Your task to perform on an android device: Show me the alarms in the clock app Image 0: 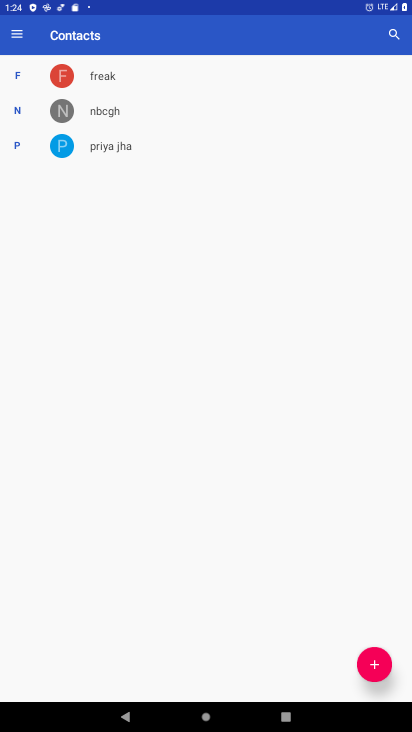
Step 0: press home button
Your task to perform on an android device: Show me the alarms in the clock app Image 1: 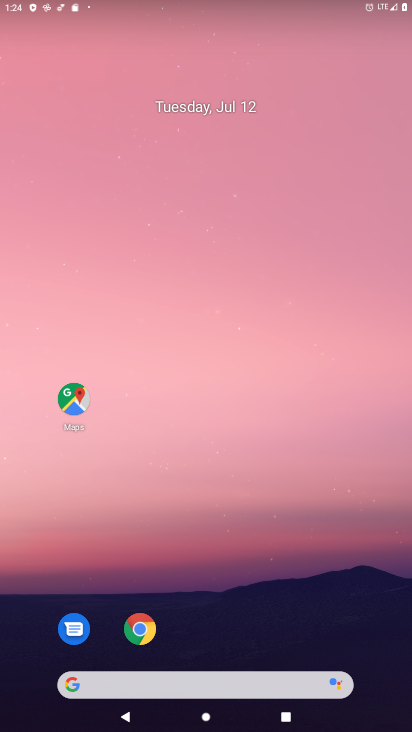
Step 1: drag from (284, 704) to (272, 64)
Your task to perform on an android device: Show me the alarms in the clock app Image 2: 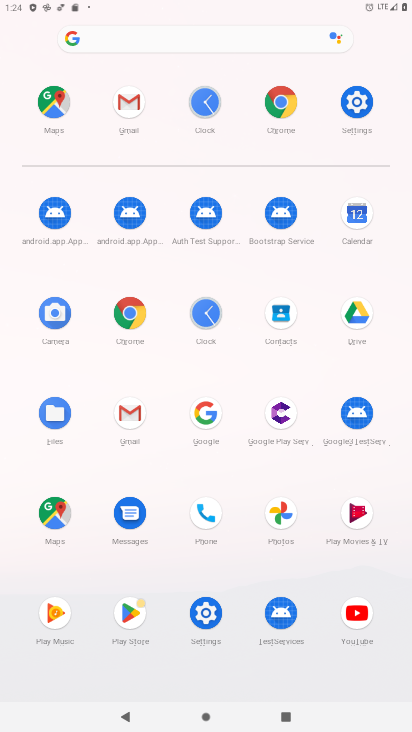
Step 2: click (209, 324)
Your task to perform on an android device: Show me the alarms in the clock app Image 3: 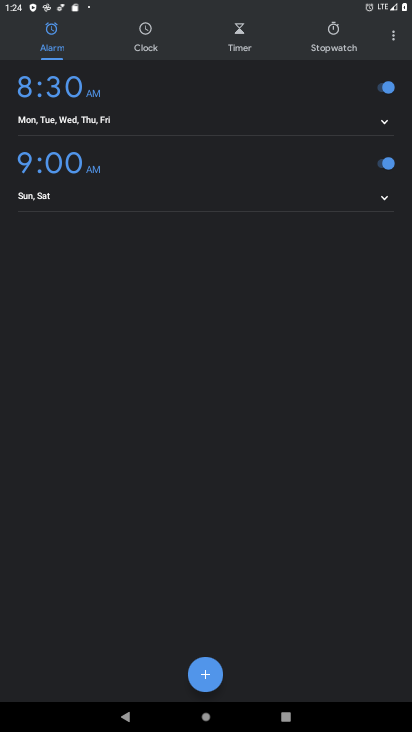
Step 3: task complete